Your task to perform on an android device: toggle improve location accuracy Image 0: 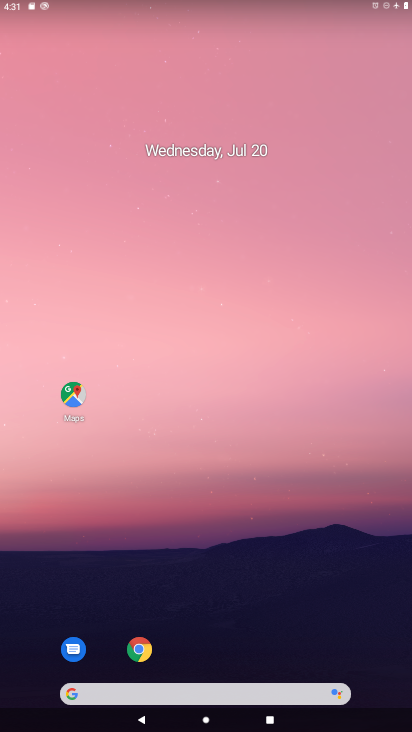
Step 0: drag from (183, 694) to (193, 175)
Your task to perform on an android device: toggle improve location accuracy Image 1: 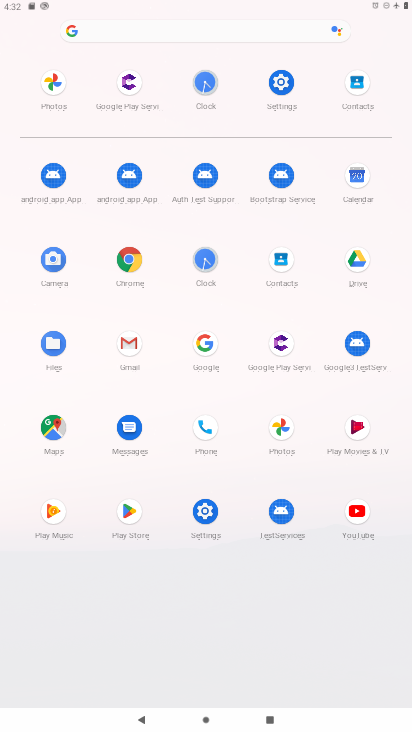
Step 1: click (282, 81)
Your task to perform on an android device: toggle improve location accuracy Image 2: 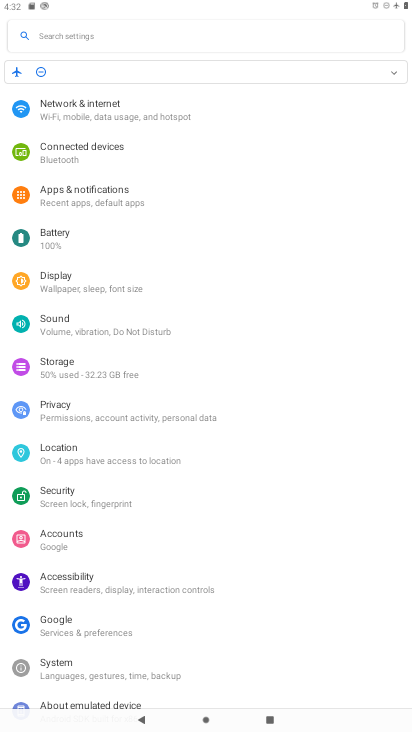
Step 2: click (59, 454)
Your task to perform on an android device: toggle improve location accuracy Image 3: 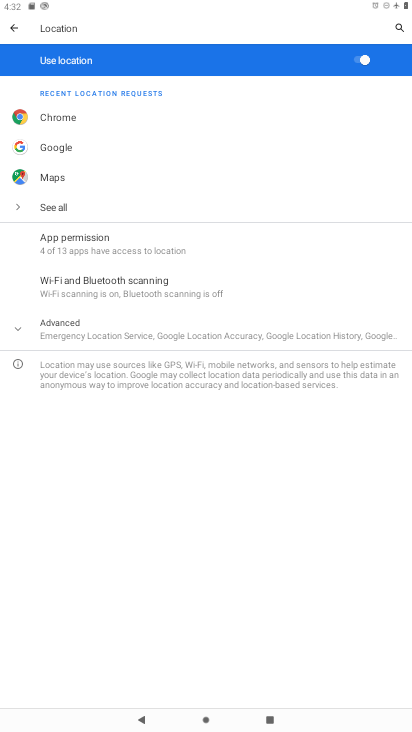
Step 3: click (107, 336)
Your task to perform on an android device: toggle improve location accuracy Image 4: 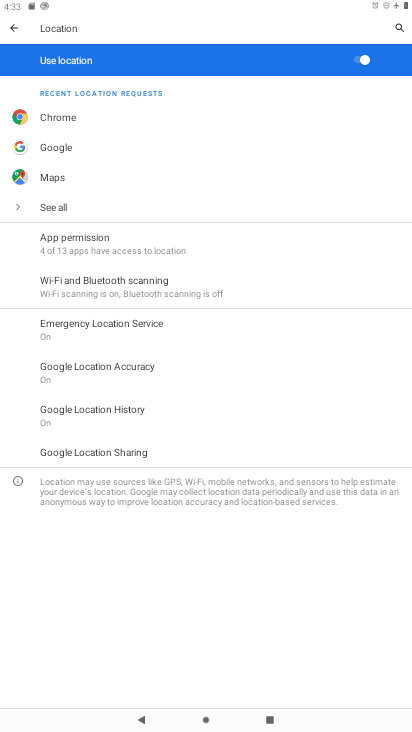
Step 4: click (113, 371)
Your task to perform on an android device: toggle improve location accuracy Image 5: 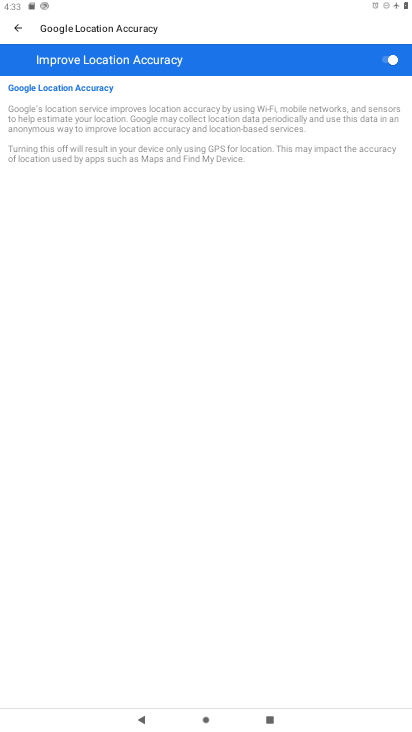
Step 5: click (388, 61)
Your task to perform on an android device: toggle improve location accuracy Image 6: 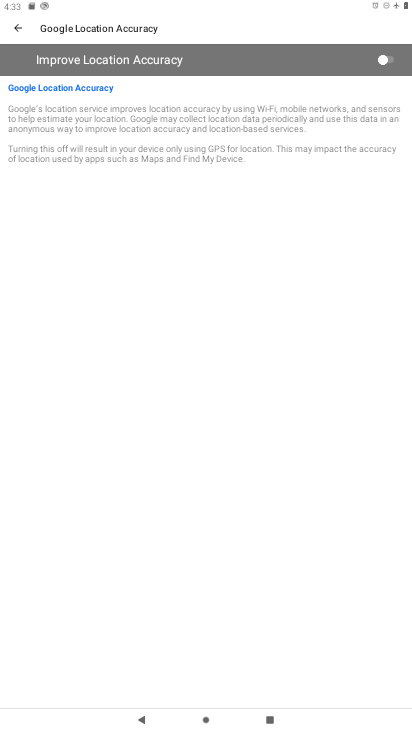
Step 6: task complete